Your task to perform on an android device: Go to display settings Image 0: 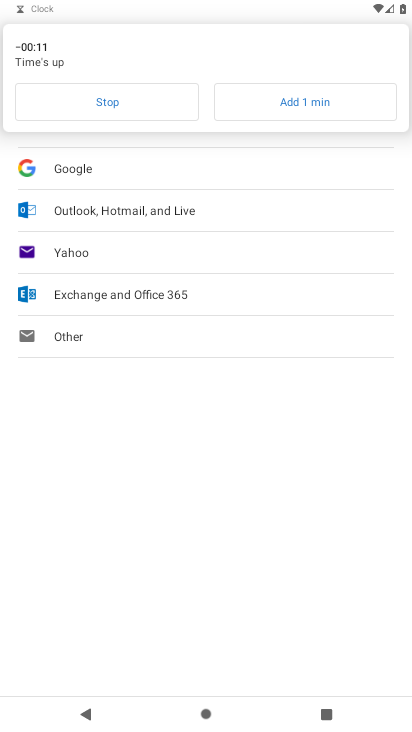
Step 0: click (145, 87)
Your task to perform on an android device: Go to display settings Image 1: 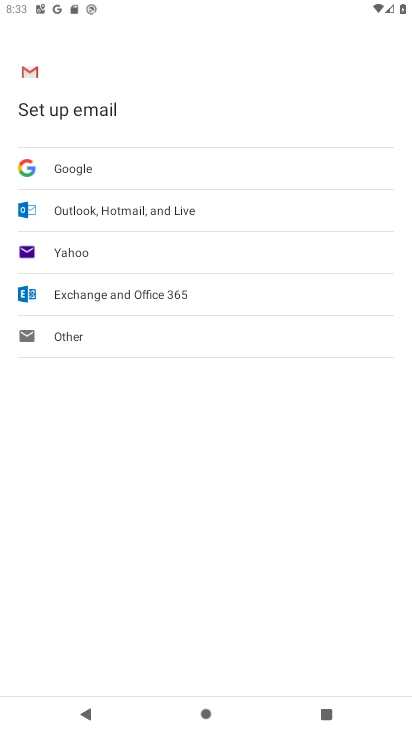
Step 1: press home button
Your task to perform on an android device: Go to display settings Image 2: 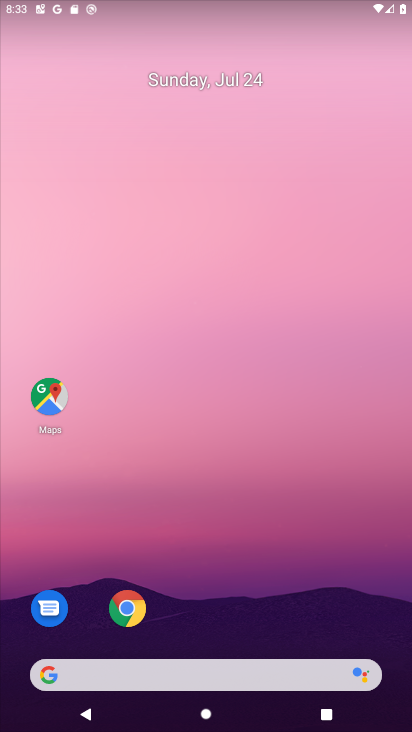
Step 2: drag from (258, 619) to (201, 29)
Your task to perform on an android device: Go to display settings Image 3: 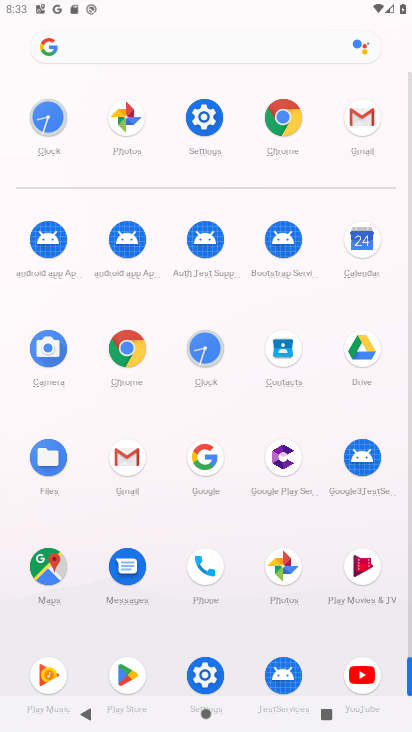
Step 3: click (227, 126)
Your task to perform on an android device: Go to display settings Image 4: 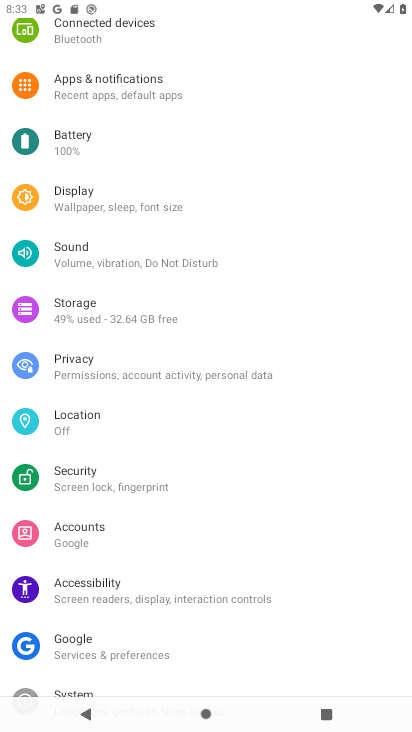
Step 4: click (173, 211)
Your task to perform on an android device: Go to display settings Image 5: 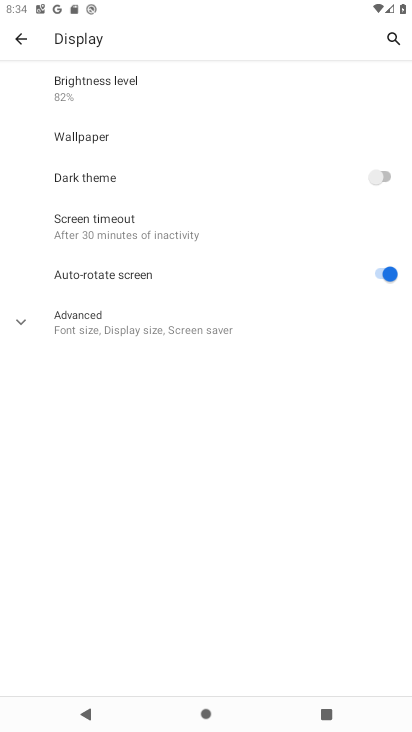
Step 5: task complete